Your task to perform on an android device: Search for Mexican restaurants on Maps Image 0: 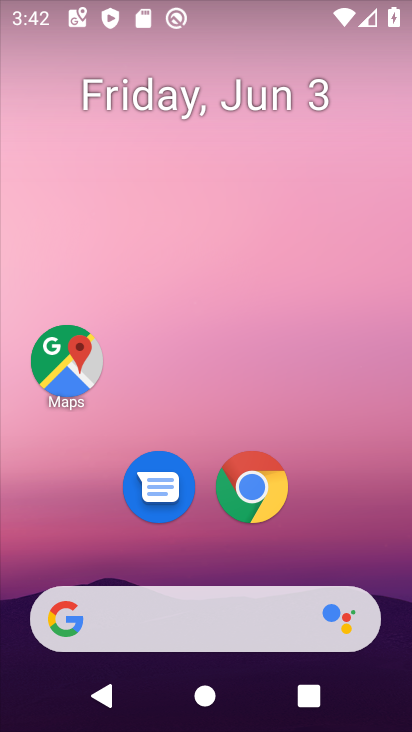
Step 0: click (279, 29)
Your task to perform on an android device: Search for Mexican restaurants on Maps Image 1: 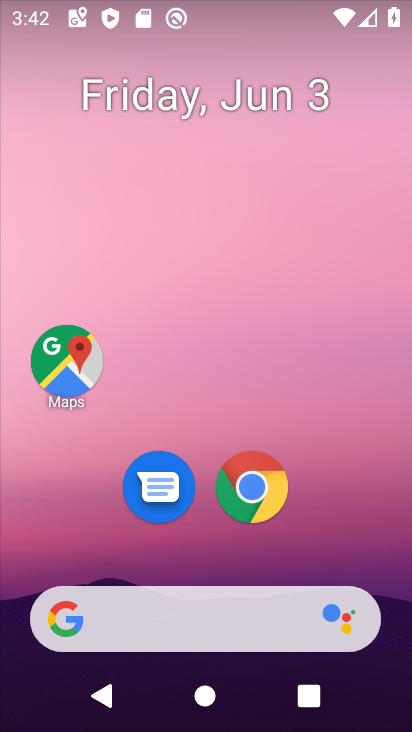
Step 1: drag from (215, 254) to (251, 67)
Your task to perform on an android device: Search for Mexican restaurants on Maps Image 2: 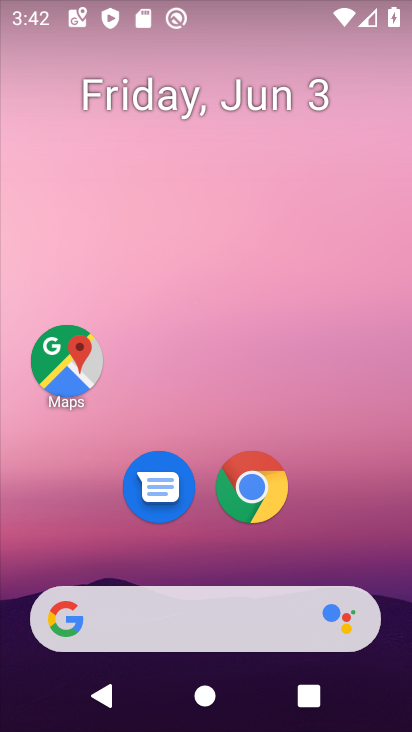
Step 2: drag from (236, 339) to (245, 0)
Your task to perform on an android device: Search for Mexican restaurants on Maps Image 3: 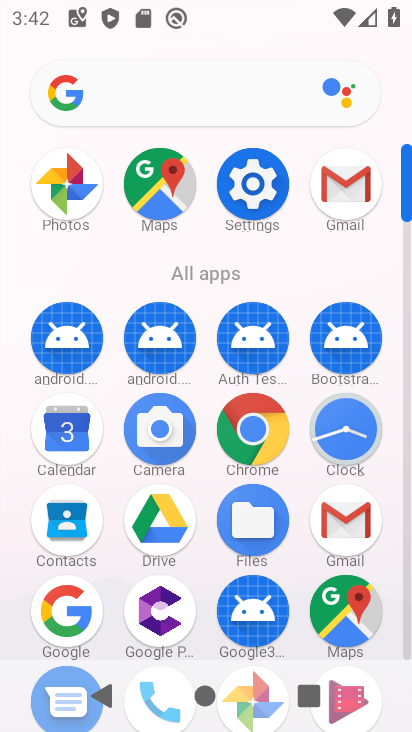
Step 3: click (159, 182)
Your task to perform on an android device: Search for Mexican restaurants on Maps Image 4: 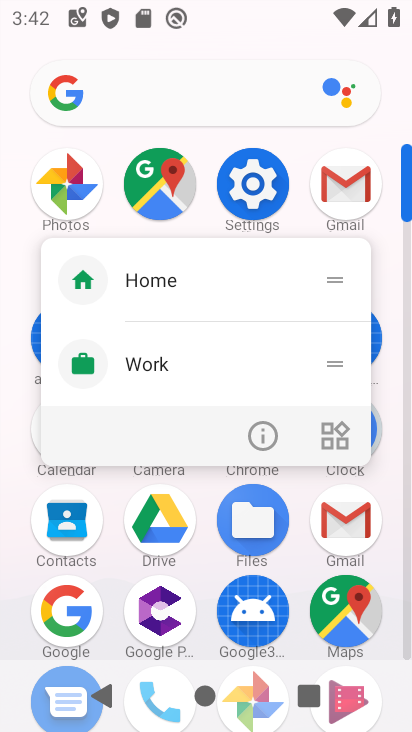
Step 4: click (257, 433)
Your task to perform on an android device: Search for Mexican restaurants on Maps Image 5: 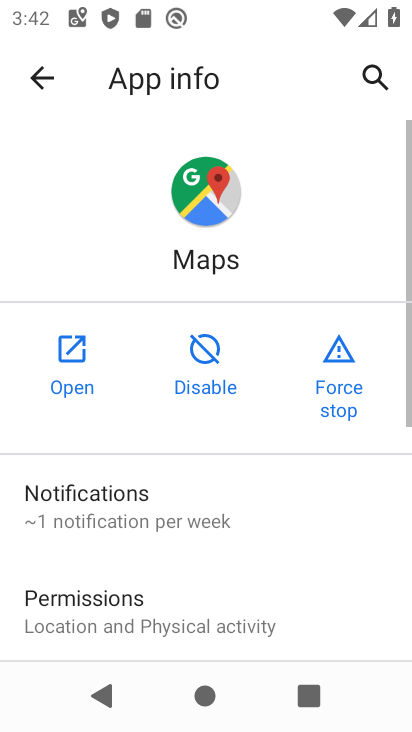
Step 5: click (74, 358)
Your task to perform on an android device: Search for Mexican restaurants on Maps Image 6: 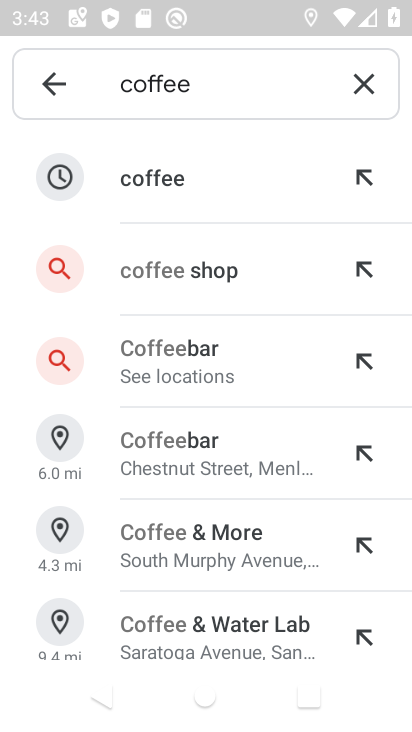
Step 6: drag from (235, 519) to (272, 186)
Your task to perform on an android device: Search for Mexican restaurants on Maps Image 7: 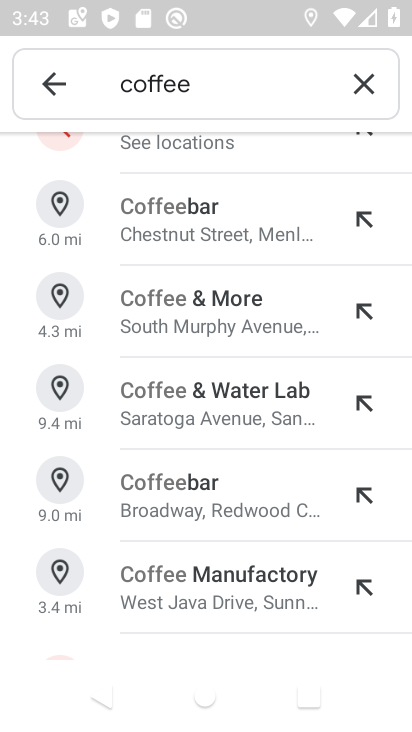
Step 7: drag from (209, 202) to (333, 729)
Your task to perform on an android device: Search for Mexican restaurants on Maps Image 8: 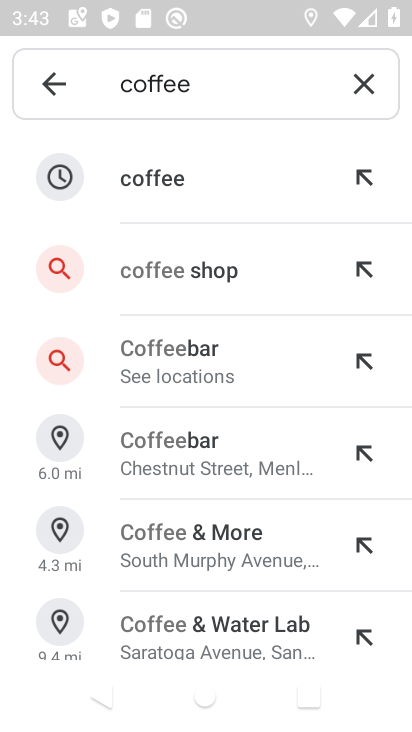
Step 8: click (366, 75)
Your task to perform on an android device: Search for Mexican restaurants on Maps Image 9: 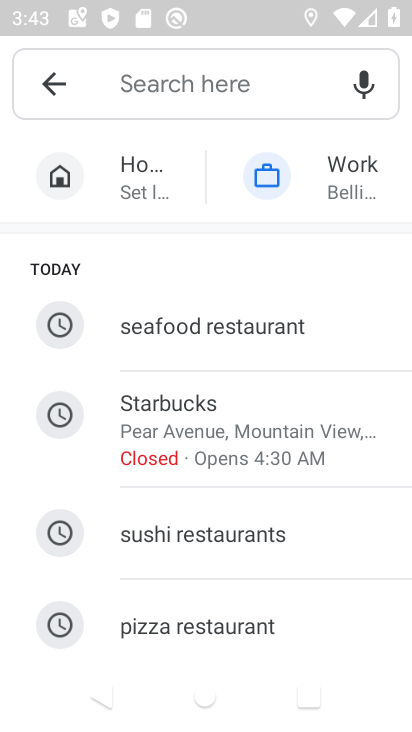
Step 9: click (54, 96)
Your task to perform on an android device: Search for Mexican restaurants on Maps Image 10: 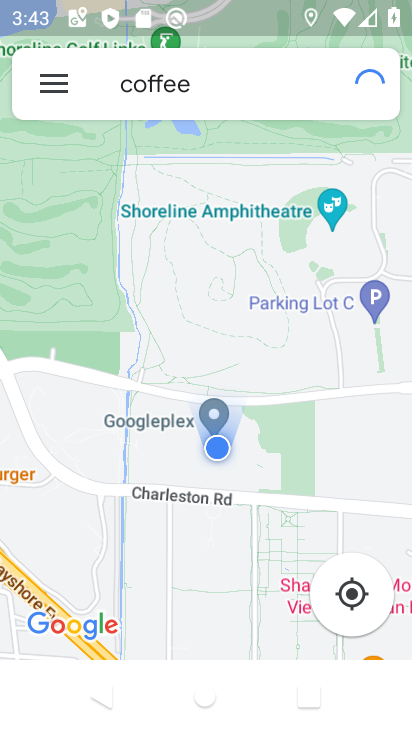
Step 10: drag from (220, 464) to (231, 139)
Your task to perform on an android device: Search for Mexican restaurants on Maps Image 11: 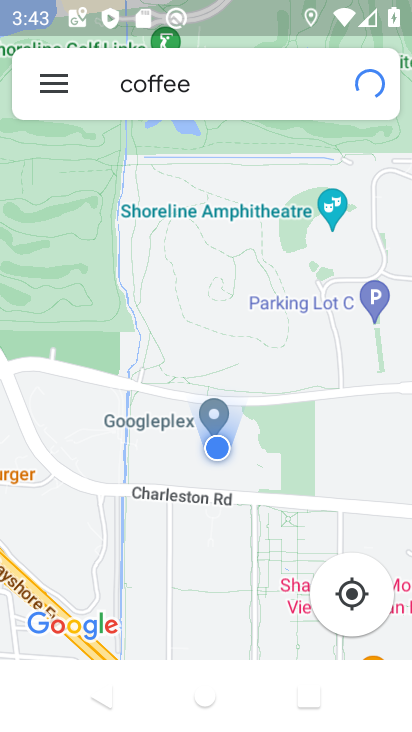
Step 11: click (193, 82)
Your task to perform on an android device: Search for Mexican restaurants on Maps Image 12: 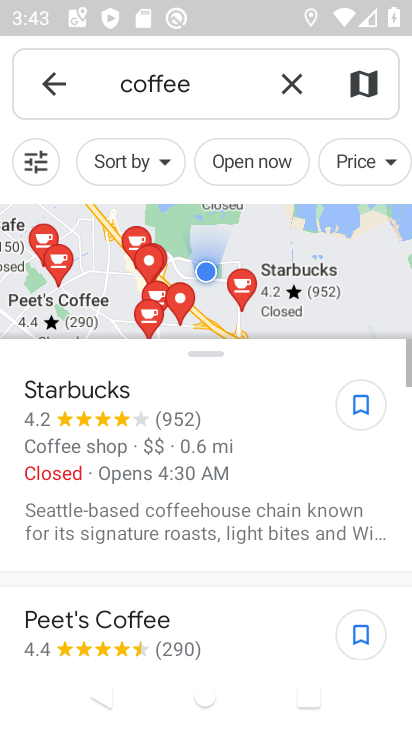
Step 12: click (300, 79)
Your task to perform on an android device: Search for Mexican restaurants on Maps Image 13: 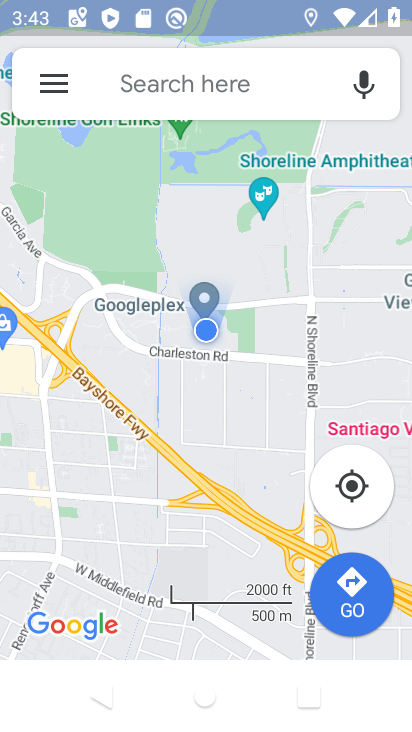
Step 13: click (262, 79)
Your task to perform on an android device: Search for Mexican restaurants on Maps Image 14: 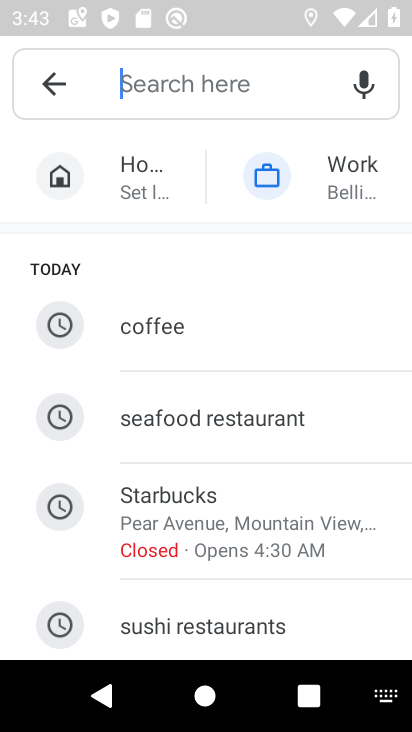
Step 14: drag from (207, 568) to (263, 242)
Your task to perform on an android device: Search for Mexican restaurants on Maps Image 15: 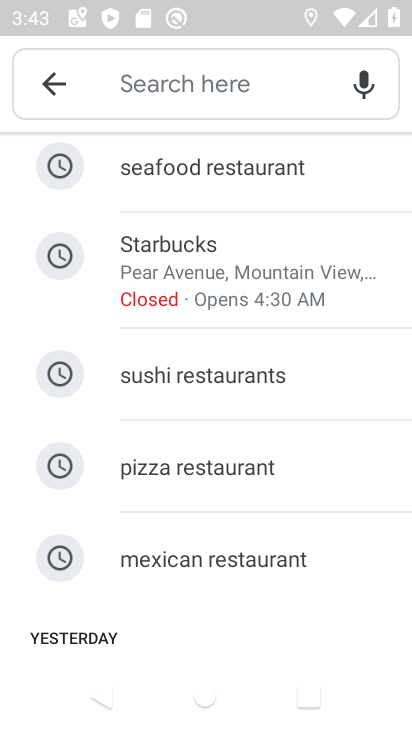
Step 15: click (206, 566)
Your task to perform on an android device: Search for Mexican restaurants on Maps Image 16: 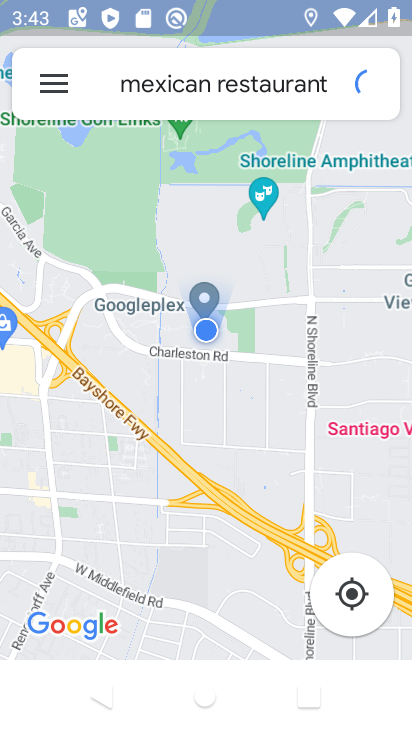
Step 16: task complete